Your task to perform on an android device: Search for vegetarian restaurants on Maps Image 0: 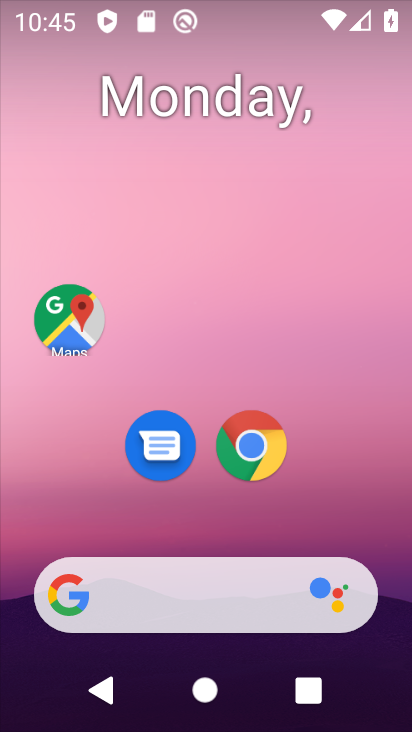
Step 0: click (70, 307)
Your task to perform on an android device: Search for vegetarian restaurants on Maps Image 1: 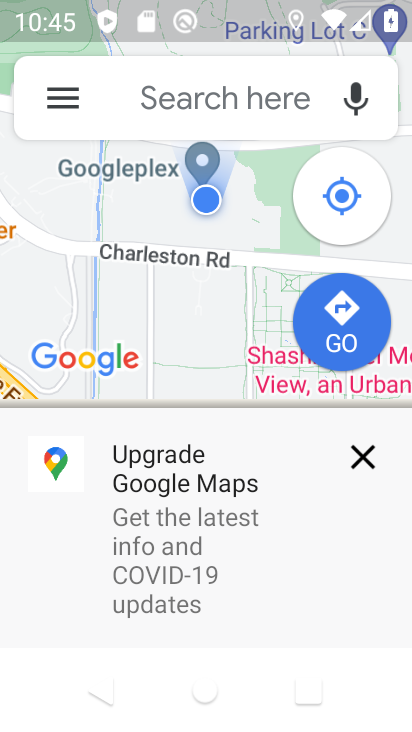
Step 1: click (208, 101)
Your task to perform on an android device: Search for vegetarian restaurants on Maps Image 2: 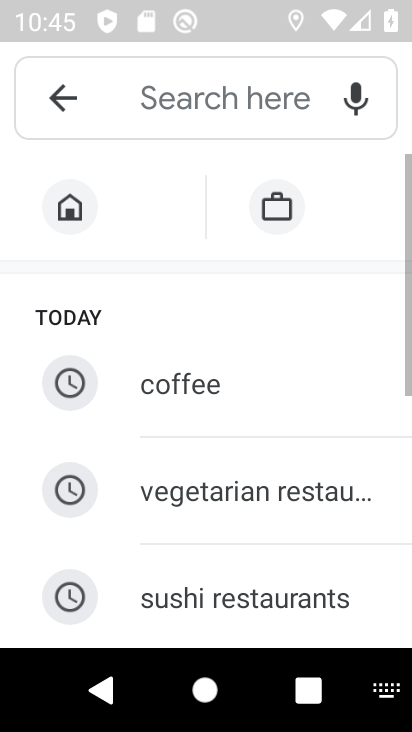
Step 2: click (221, 488)
Your task to perform on an android device: Search for vegetarian restaurants on Maps Image 3: 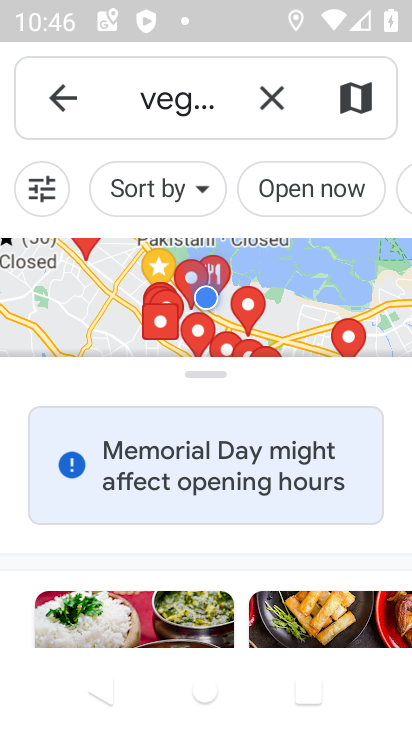
Step 3: task complete